Your task to perform on an android device: refresh tabs in the chrome app Image 0: 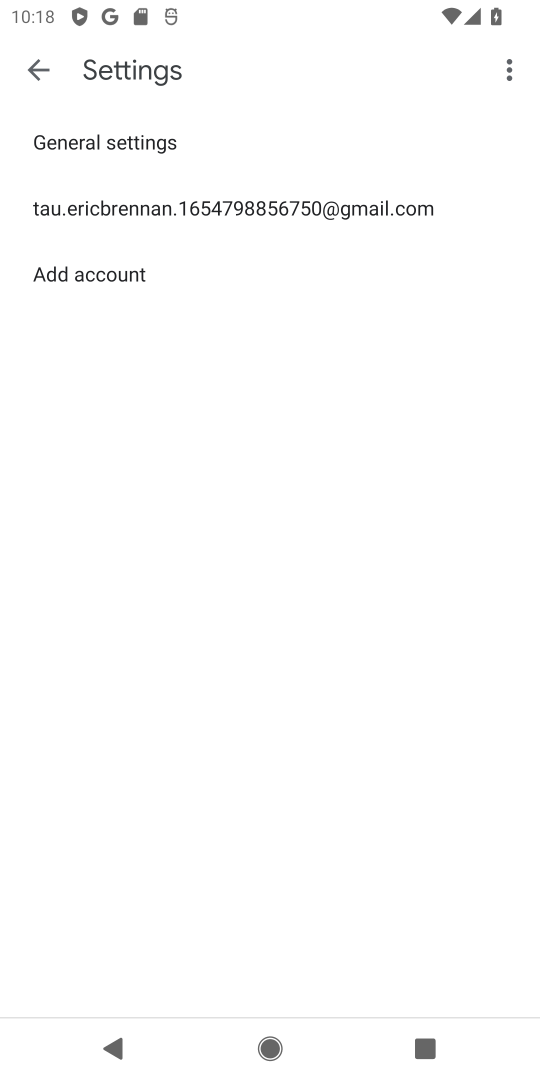
Step 0: press home button
Your task to perform on an android device: refresh tabs in the chrome app Image 1: 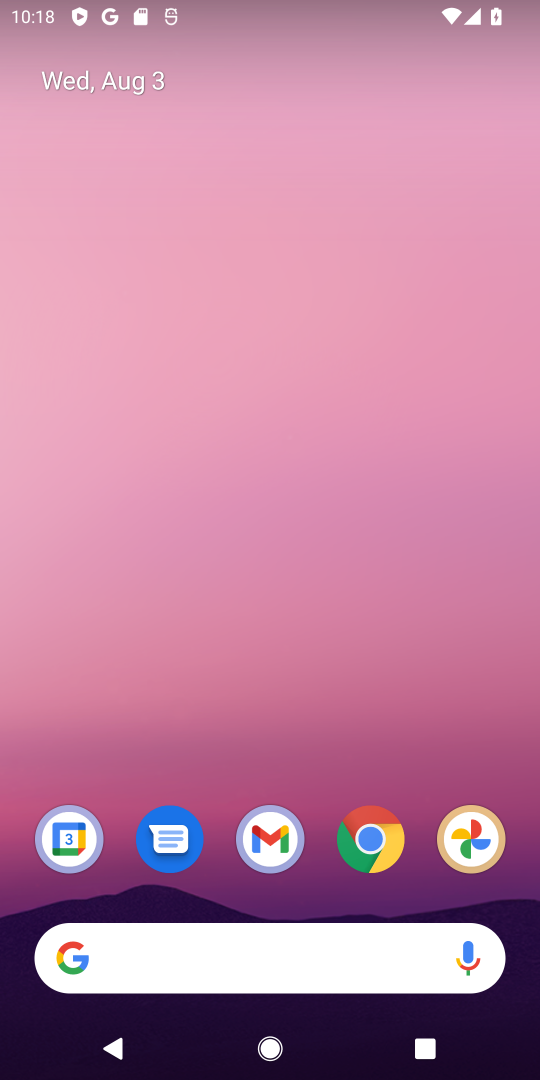
Step 1: click (361, 840)
Your task to perform on an android device: refresh tabs in the chrome app Image 2: 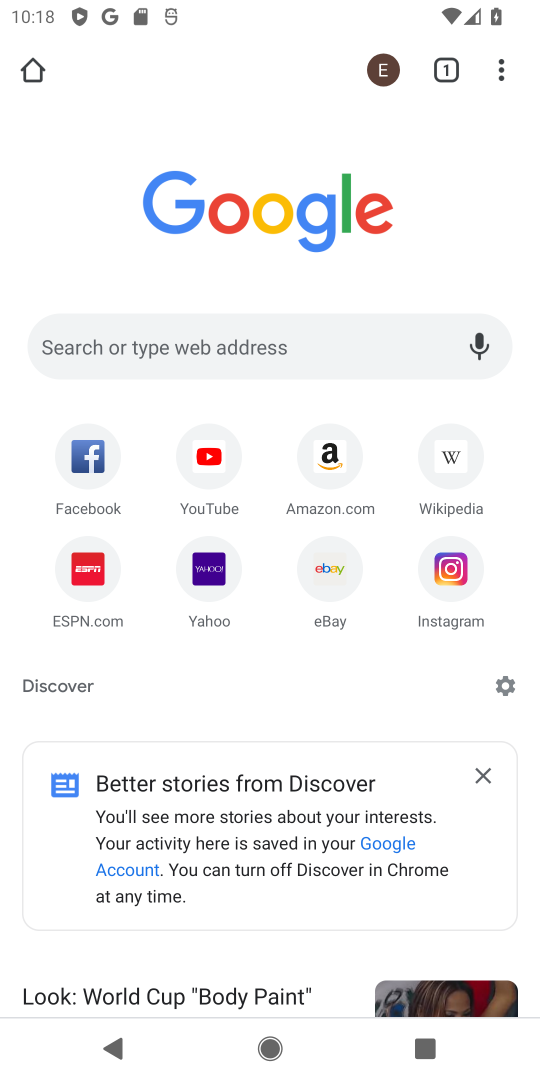
Step 2: click (492, 71)
Your task to perform on an android device: refresh tabs in the chrome app Image 3: 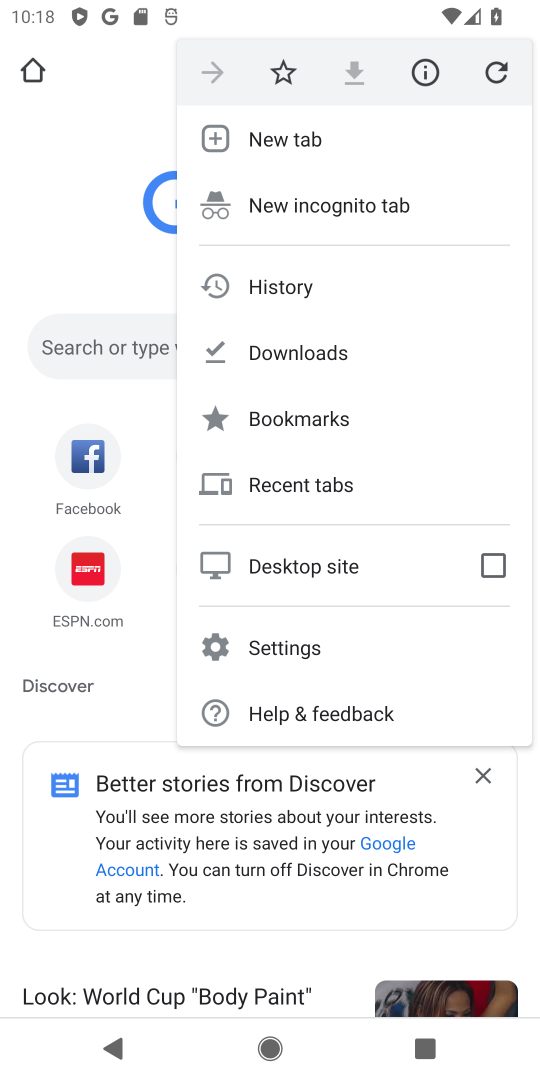
Step 3: click (488, 63)
Your task to perform on an android device: refresh tabs in the chrome app Image 4: 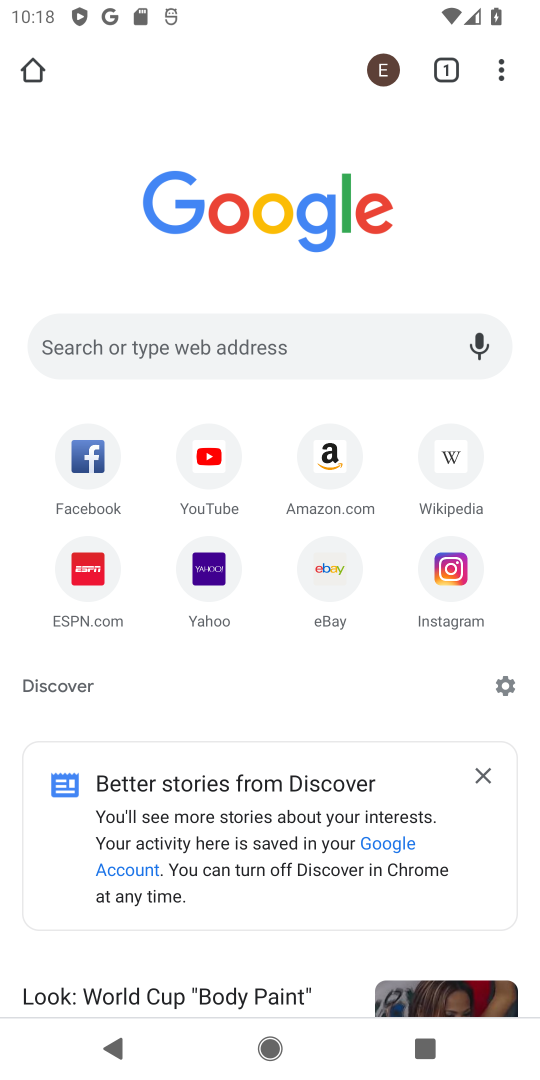
Step 4: task complete